Your task to perform on an android device: Play the last video I watched on Youtube Image 0: 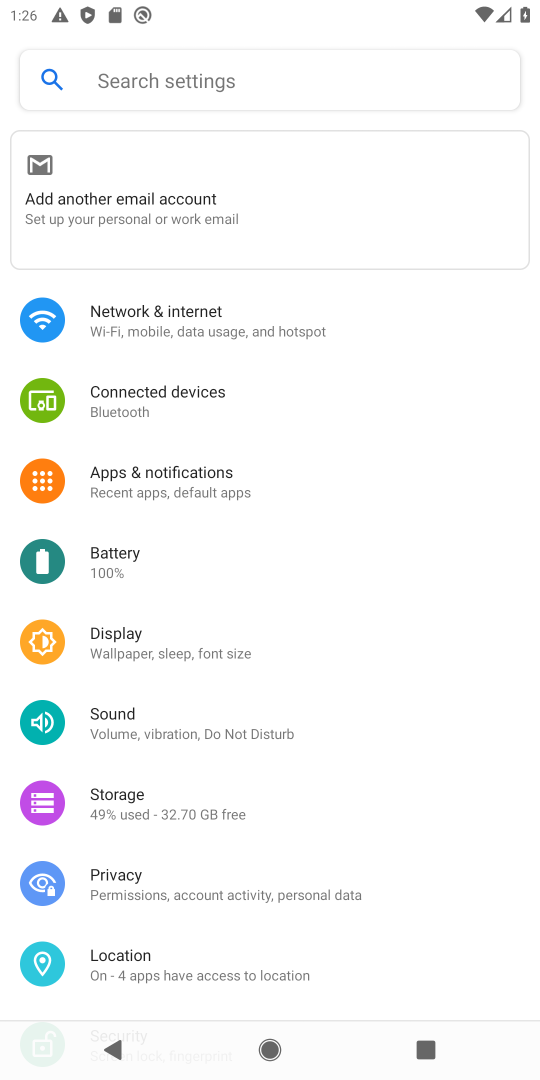
Step 0: press home button
Your task to perform on an android device: Play the last video I watched on Youtube Image 1: 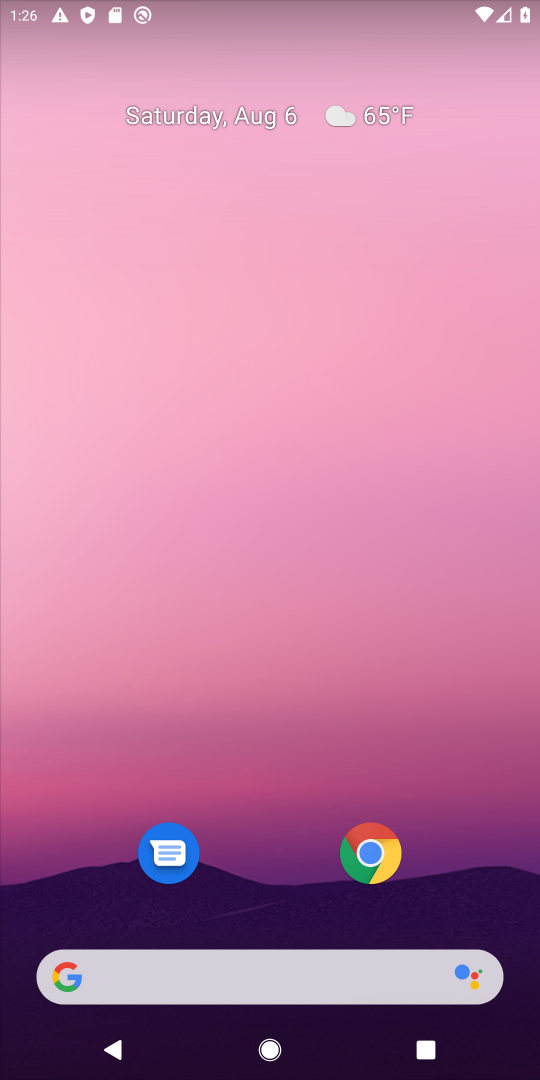
Step 1: drag from (469, 892) to (470, 140)
Your task to perform on an android device: Play the last video I watched on Youtube Image 2: 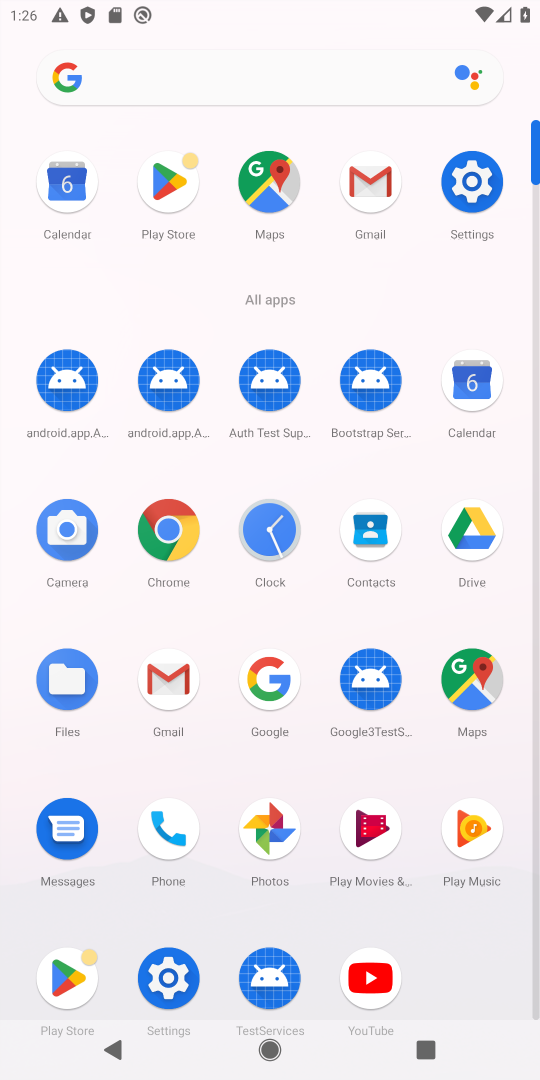
Step 2: click (369, 978)
Your task to perform on an android device: Play the last video I watched on Youtube Image 3: 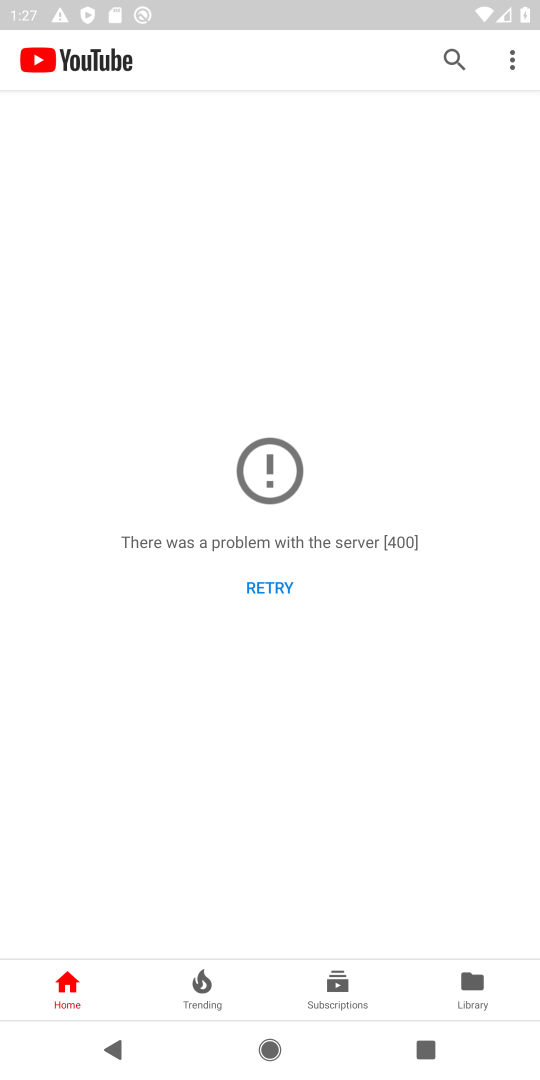
Step 3: click (467, 983)
Your task to perform on an android device: Play the last video I watched on Youtube Image 4: 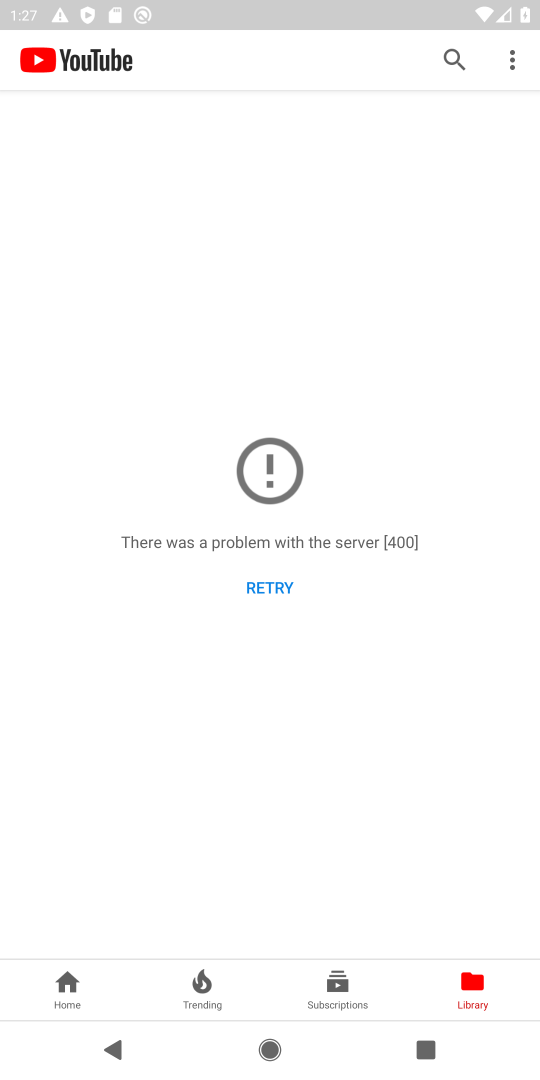
Step 4: click (271, 577)
Your task to perform on an android device: Play the last video I watched on Youtube Image 5: 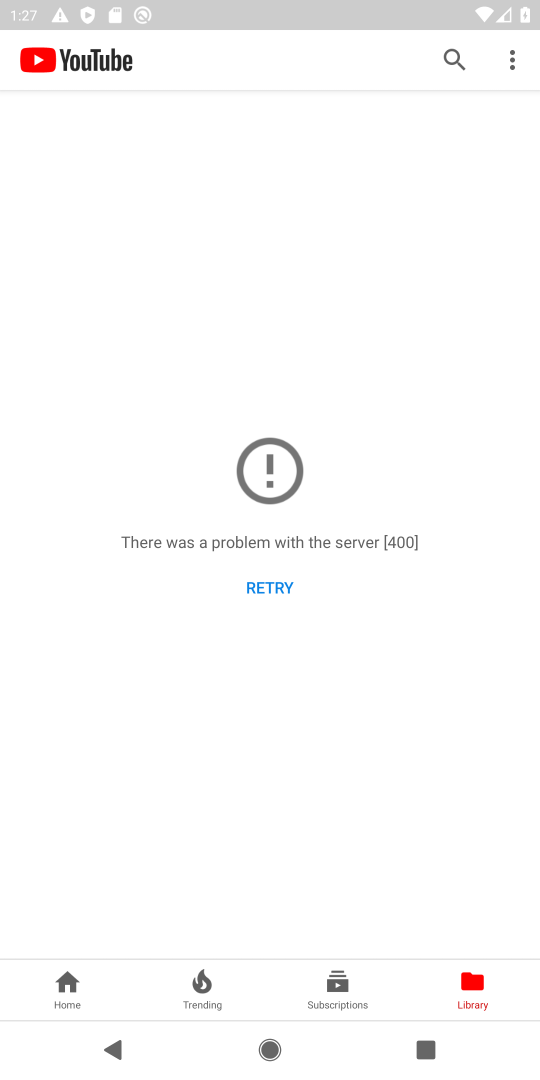
Step 5: task complete